Your task to perform on an android device: see creations saved in the google photos Image 0: 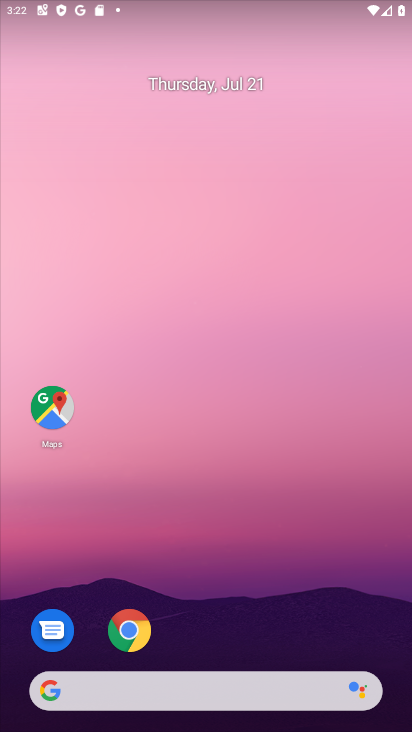
Step 0: drag from (273, 438) to (265, 22)
Your task to perform on an android device: see creations saved in the google photos Image 1: 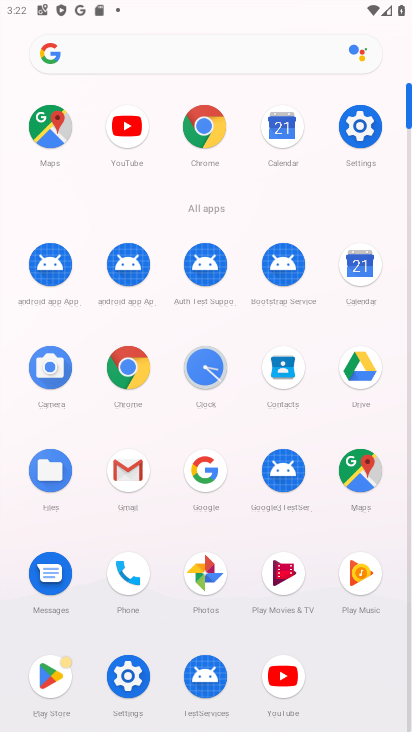
Step 1: click (224, 585)
Your task to perform on an android device: see creations saved in the google photos Image 2: 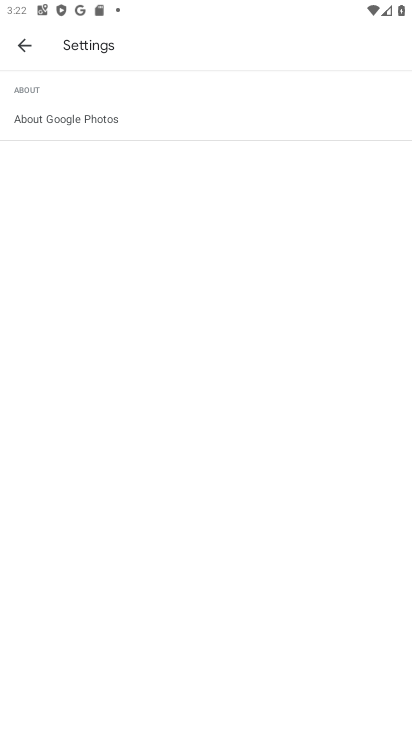
Step 2: click (16, 47)
Your task to perform on an android device: see creations saved in the google photos Image 3: 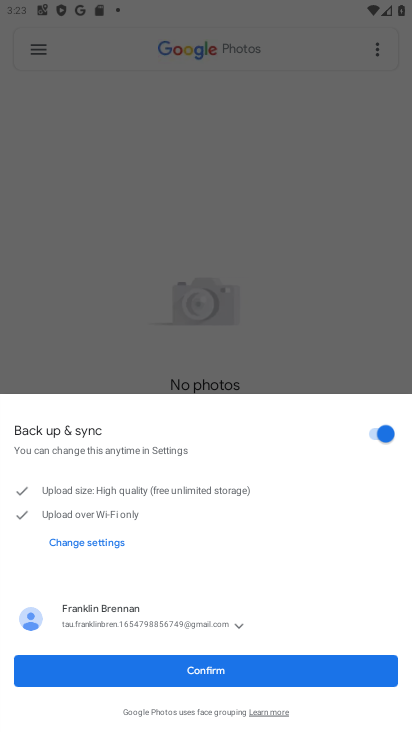
Step 3: click (237, 676)
Your task to perform on an android device: see creations saved in the google photos Image 4: 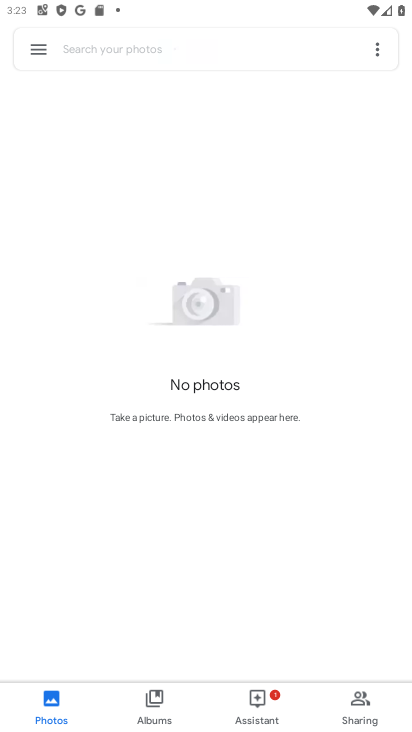
Step 4: click (155, 700)
Your task to perform on an android device: see creations saved in the google photos Image 5: 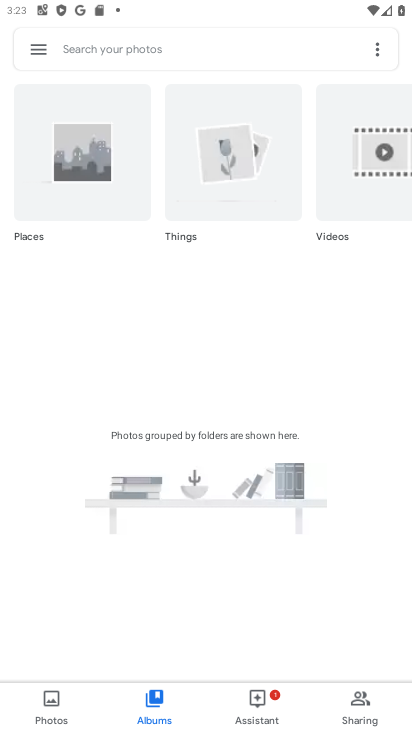
Step 5: task complete